Your task to perform on an android device: turn off airplane mode Image 0: 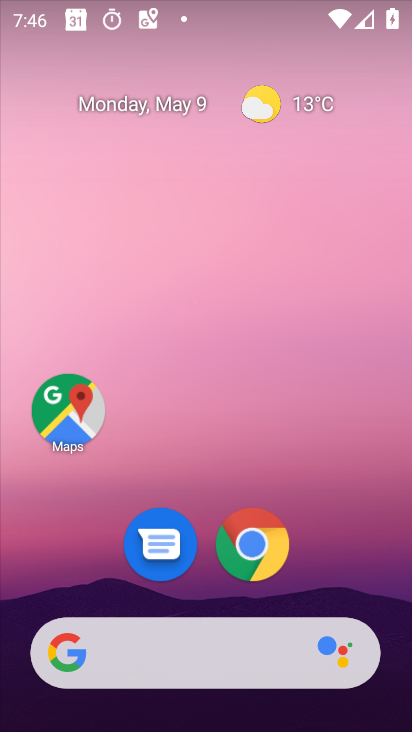
Step 0: drag from (343, 550) to (355, 18)
Your task to perform on an android device: turn off airplane mode Image 1: 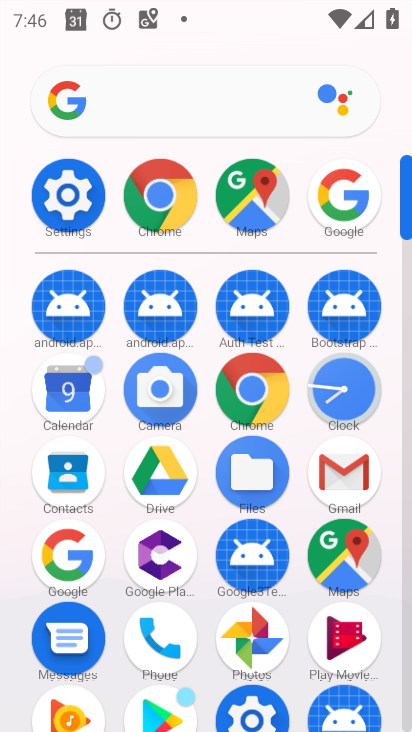
Step 1: click (74, 199)
Your task to perform on an android device: turn off airplane mode Image 2: 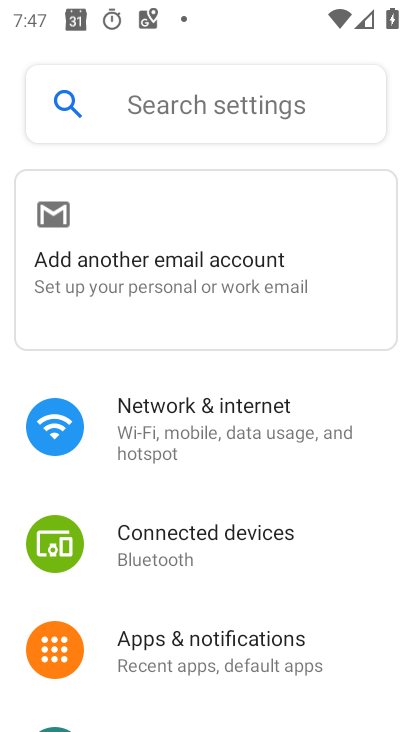
Step 2: click (136, 439)
Your task to perform on an android device: turn off airplane mode Image 3: 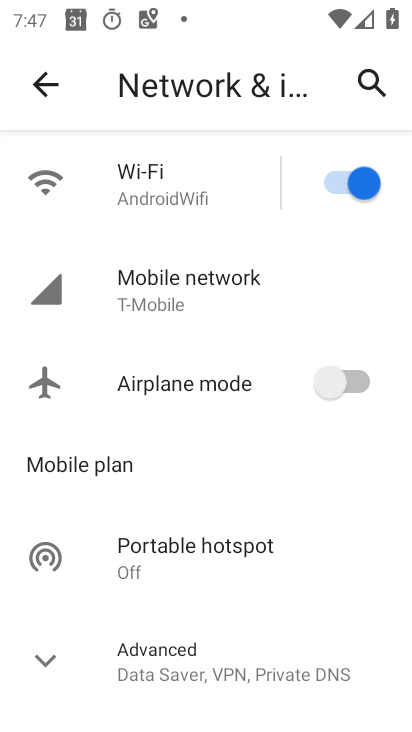
Step 3: task complete